Your task to perform on an android device: turn on wifi Image 0: 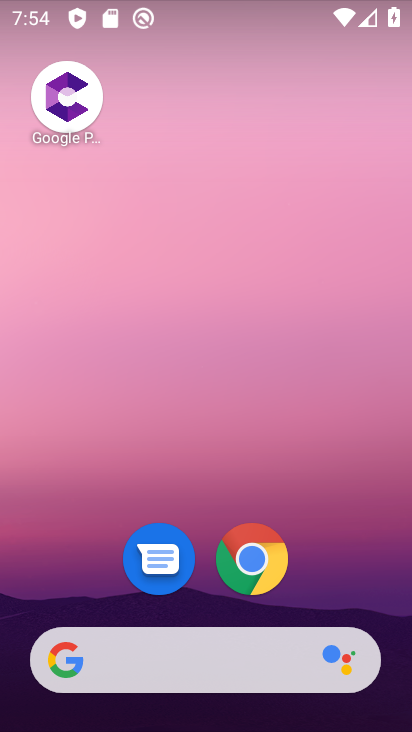
Step 0: drag from (114, 18) to (193, 525)
Your task to perform on an android device: turn on wifi Image 1: 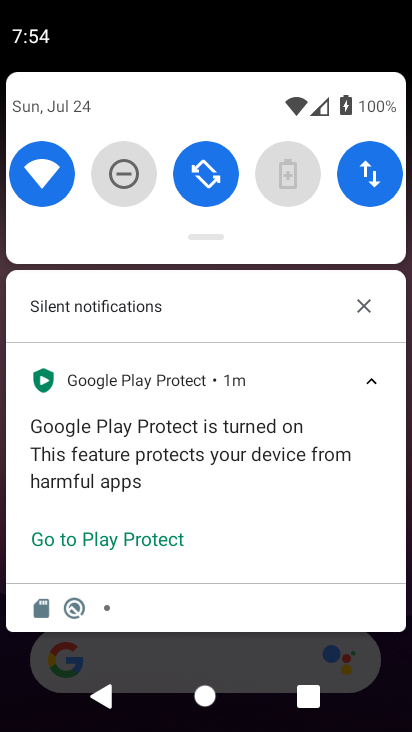
Step 1: task complete